Your task to perform on an android device: Open wifi settings Image 0: 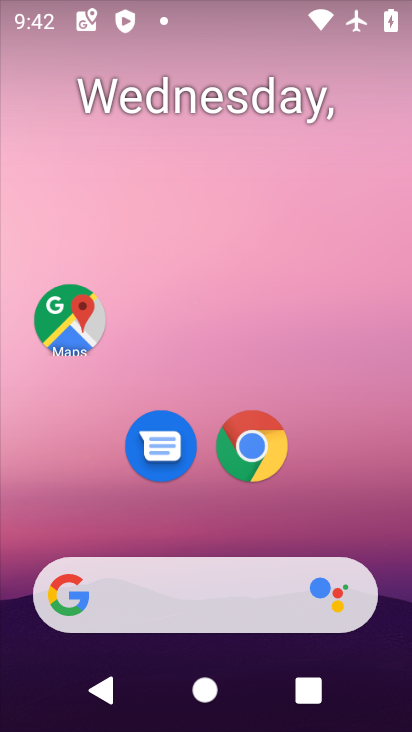
Step 0: press home button
Your task to perform on an android device: Open wifi settings Image 1: 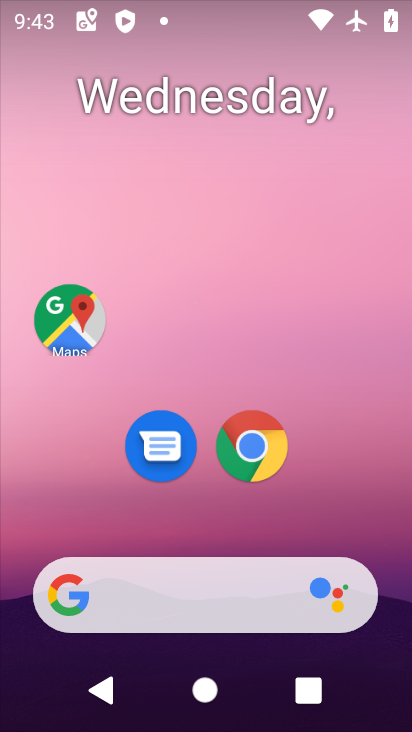
Step 1: drag from (197, 457) to (318, 75)
Your task to perform on an android device: Open wifi settings Image 2: 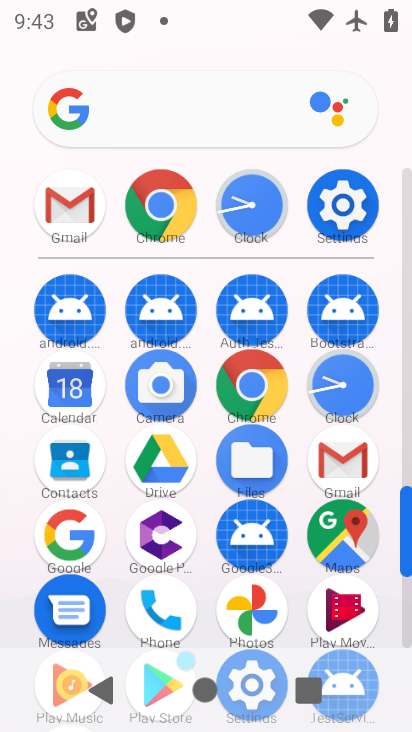
Step 2: click (355, 210)
Your task to perform on an android device: Open wifi settings Image 3: 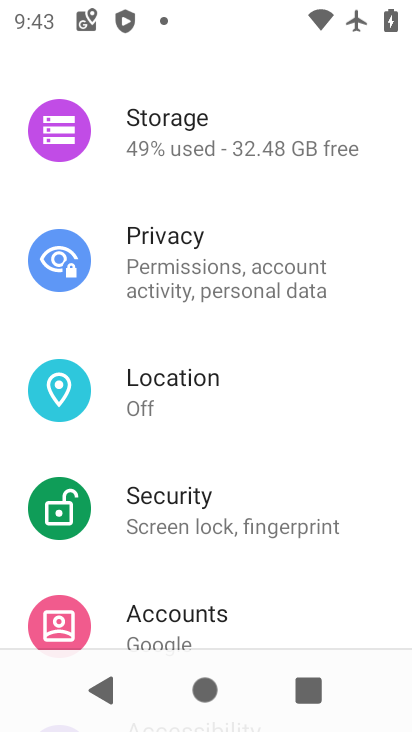
Step 3: drag from (316, 247) to (280, 601)
Your task to perform on an android device: Open wifi settings Image 4: 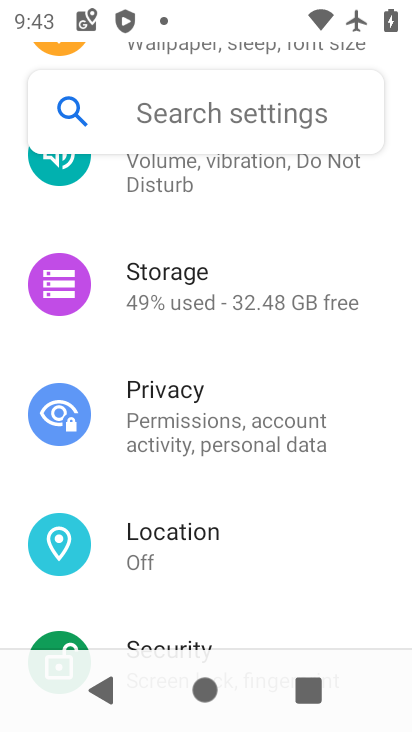
Step 4: drag from (280, 209) to (257, 584)
Your task to perform on an android device: Open wifi settings Image 5: 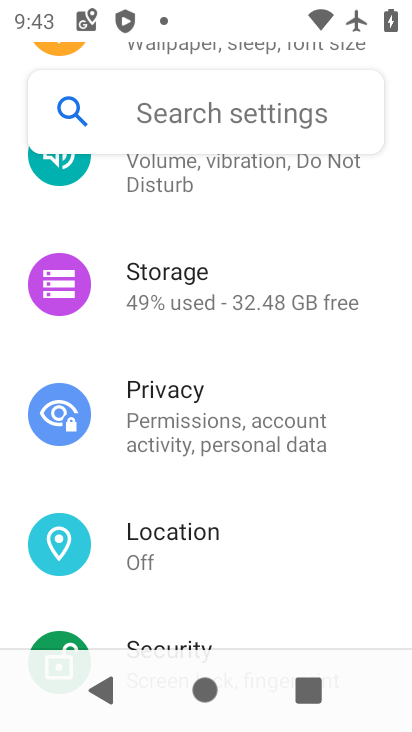
Step 5: drag from (275, 234) to (285, 617)
Your task to perform on an android device: Open wifi settings Image 6: 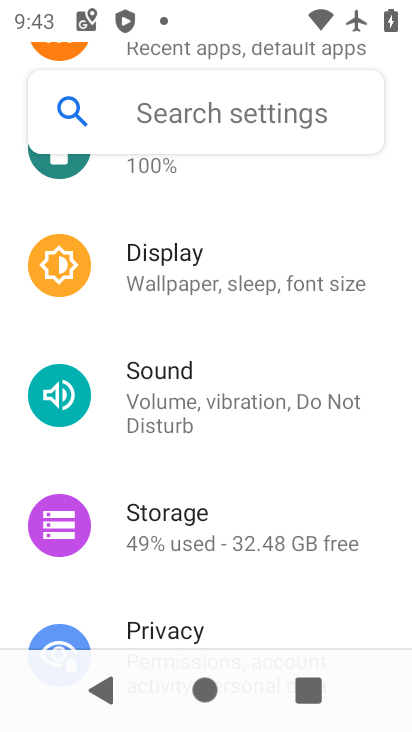
Step 6: drag from (266, 198) to (262, 631)
Your task to perform on an android device: Open wifi settings Image 7: 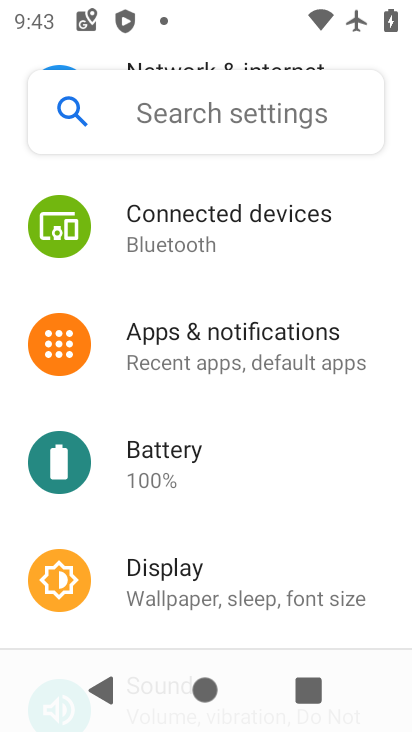
Step 7: drag from (285, 184) to (305, 560)
Your task to perform on an android device: Open wifi settings Image 8: 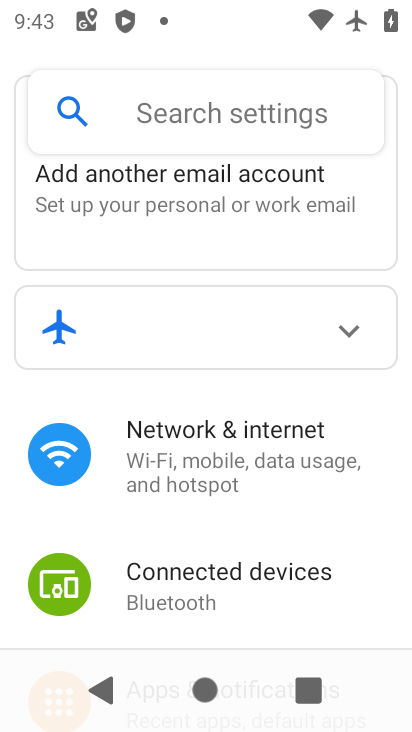
Step 8: click (222, 469)
Your task to perform on an android device: Open wifi settings Image 9: 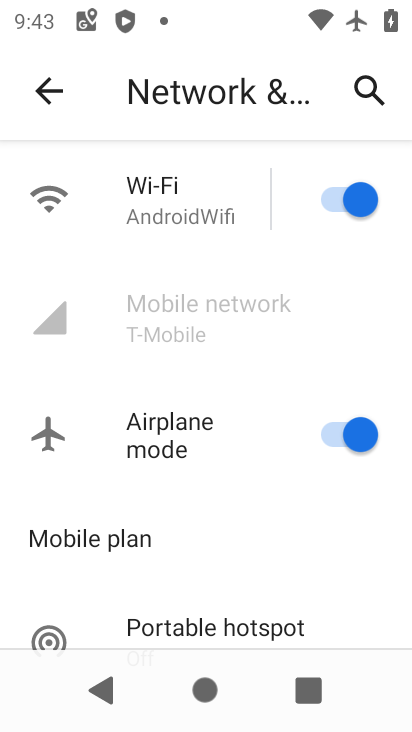
Step 9: click (176, 216)
Your task to perform on an android device: Open wifi settings Image 10: 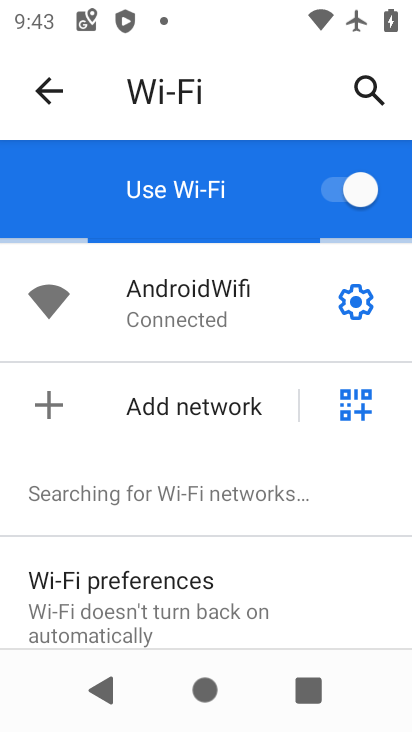
Step 10: task complete